Your task to perform on an android device: Open wifi settings Image 0: 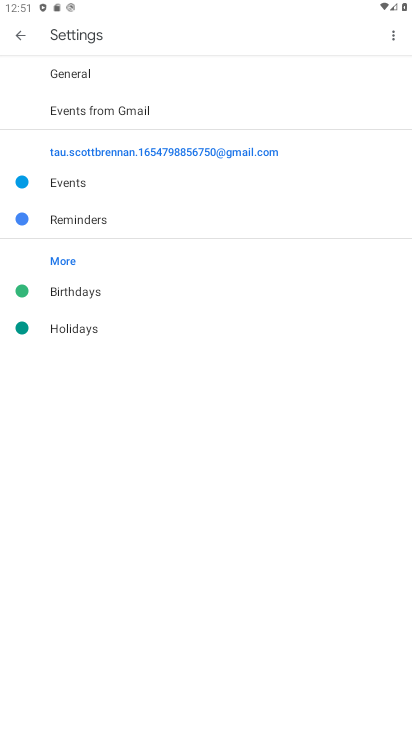
Step 0: press home button
Your task to perform on an android device: Open wifi settings Image 1: 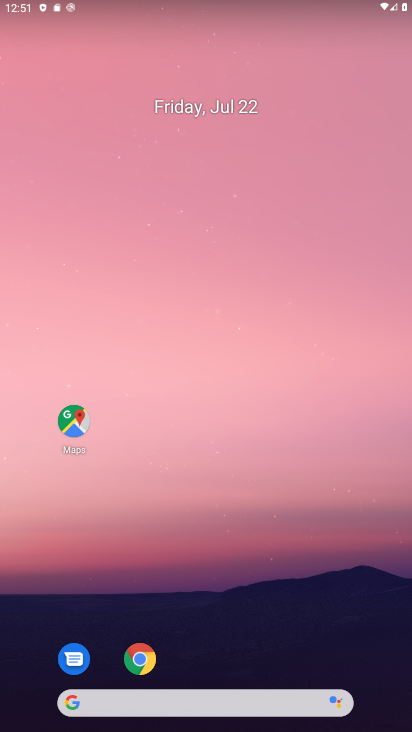
Step 1: task complete